Your task to perform on an android device: Go to Amazon Image 0: 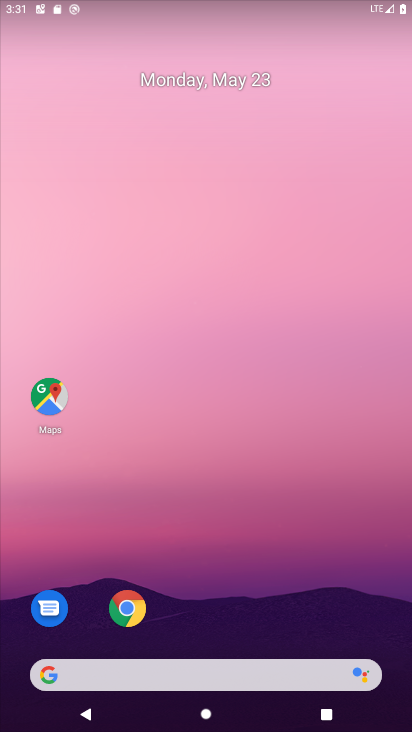
Step 0: click (136, 620)
Your task to perform on an android device: Go to Amazon Image 1: 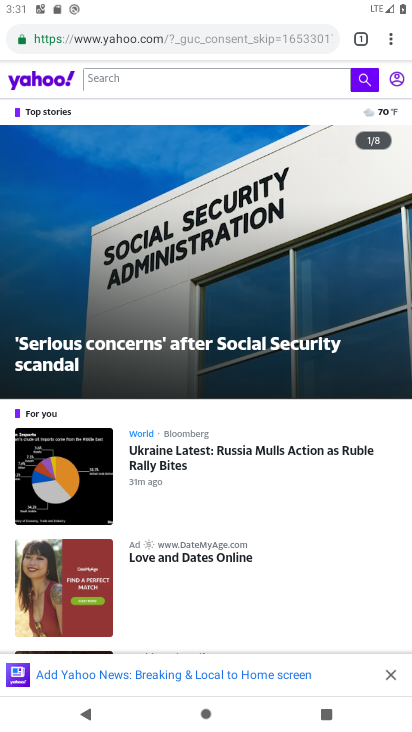
Step 1: click (395, 37)
Your task to perform on an android device: Go to Amazon Image 2: 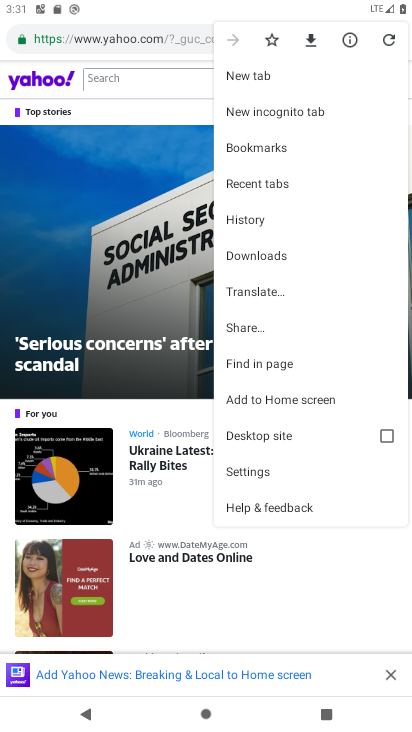
Step 2: click (247, 75)
Your task to perform on an android device: Go to Amazon Image 3: 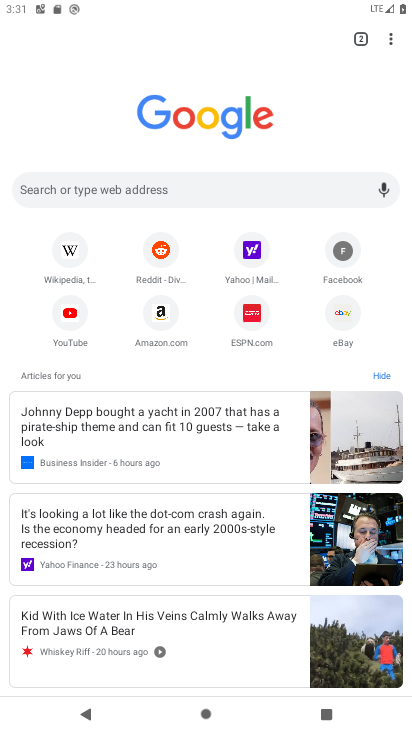
Step 3: click (155, 316)
Your task to perform on an android device: Go to Amazon Image 4: 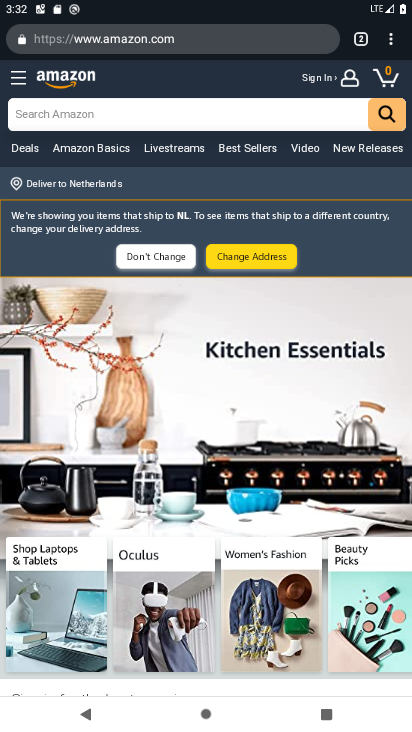
Step 4: task complete